Your task to perform on an android device: Google the capital of Peru Image 0: 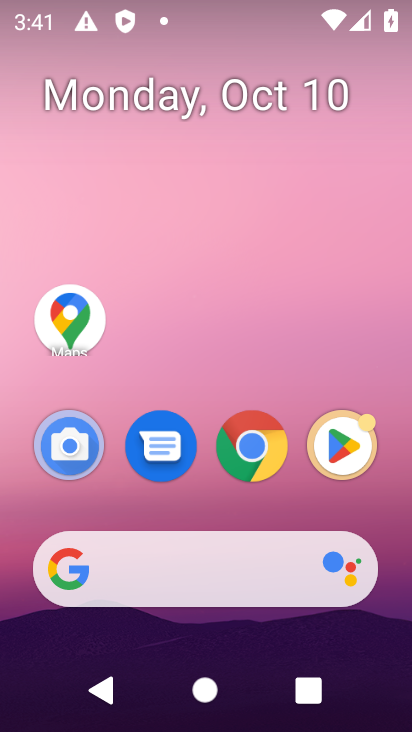
Step 0: click (192, 566)
Your task to perform on an android device: Google the capital of Peru Image 1: 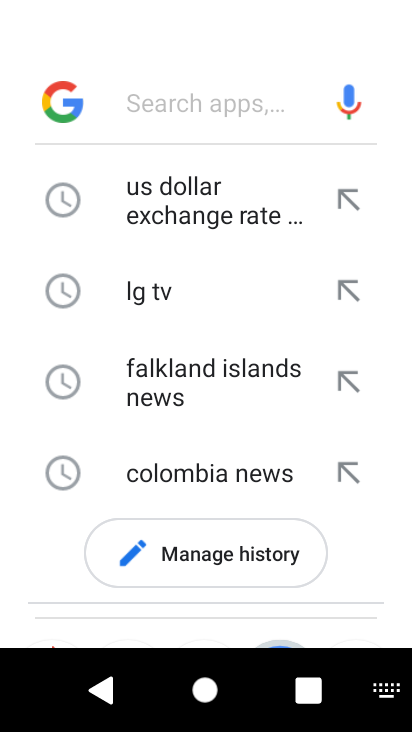
Step 1: type "capital of Peru"
Your task to perform on an android device: Google the capital of Peru Image 2: 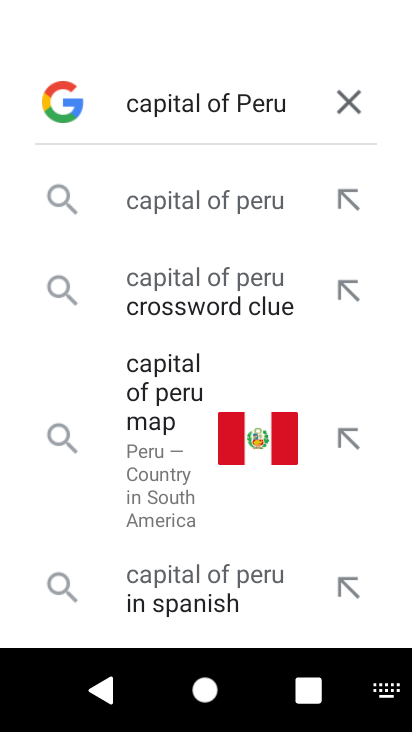
Step 2: type ""
Your task to perform on an android device: Google the capital of Peru Image 3: 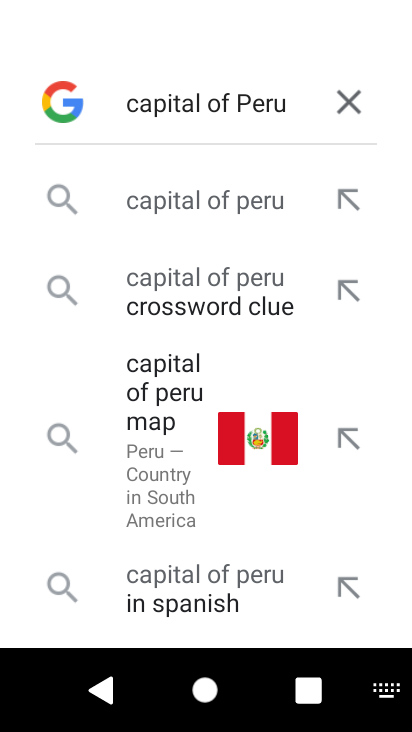
Step 3: click (190, 193)
Your task to perform on an android device: Google the capital of Peru Image 4: 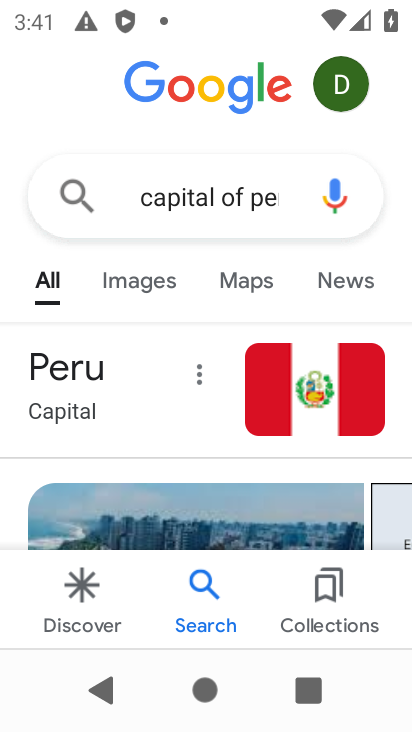
Step 4: task complete